Your task to perform on an android device: Toggle the flashlight Image 0: 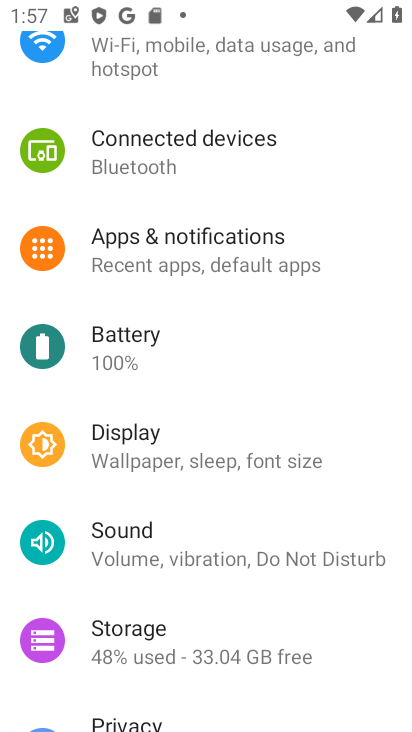
Step 0: drag from (251, 152) to (206, 609)
Your task to perform on an android device: Toggle the flashlight Image 1: 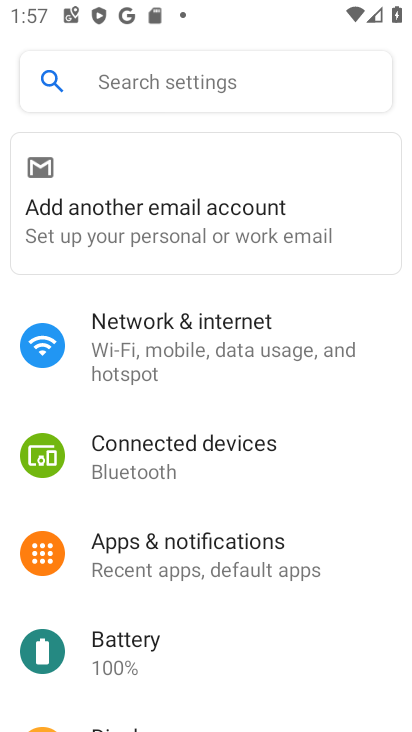
Step 1: click (250, 70)
Your task to perform on an android device: Toggle the flashlight Image 2: 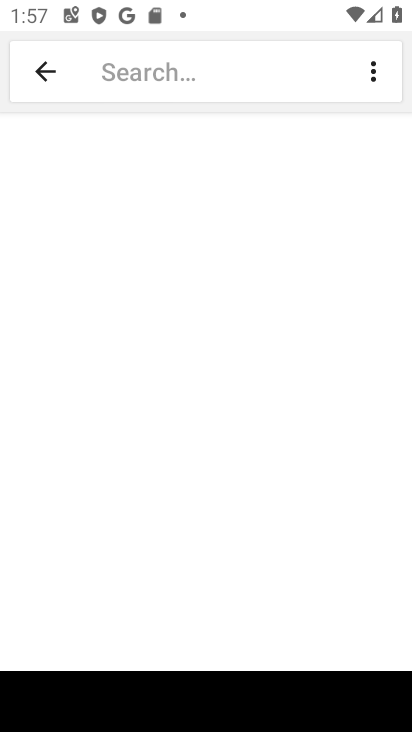
Step 2: type "Flashlight"
Your task to perform on an android device: Toggle the flashlight Image 3: 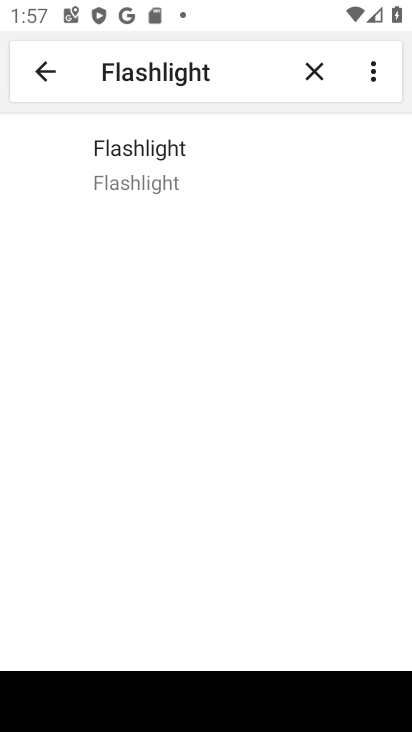
Step 3: click (155, 157)
Your task to perform on an android device: Toggle the flashlight Image 4: 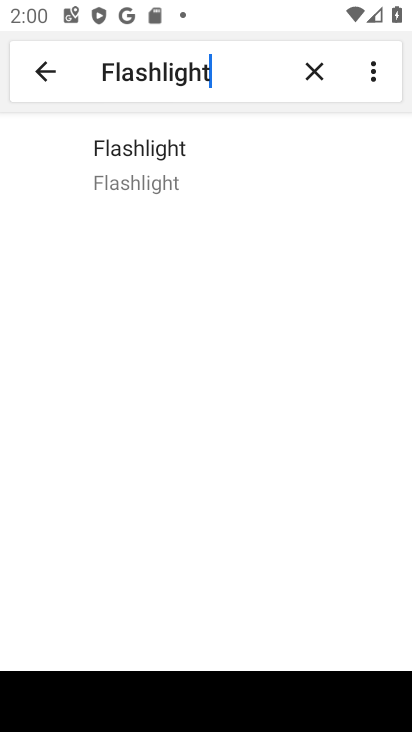
Step 4: task complete